Your task to perform on an android device: Open privacy settings Image 0: 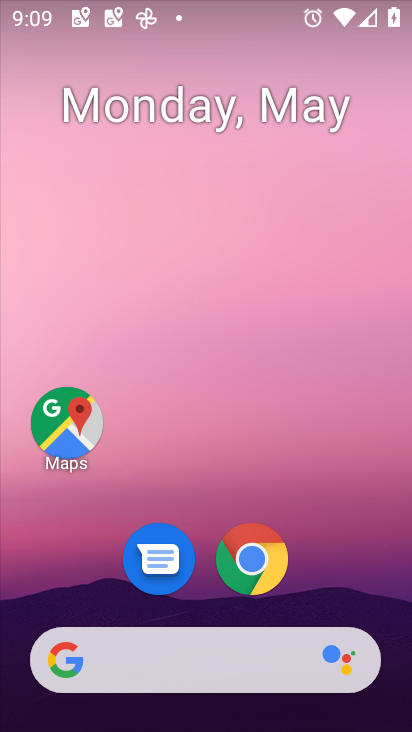
Step 0: drag from (381, 616) to (274, 94)
Your task to perform on an android device: Open privacy settings Image 1: 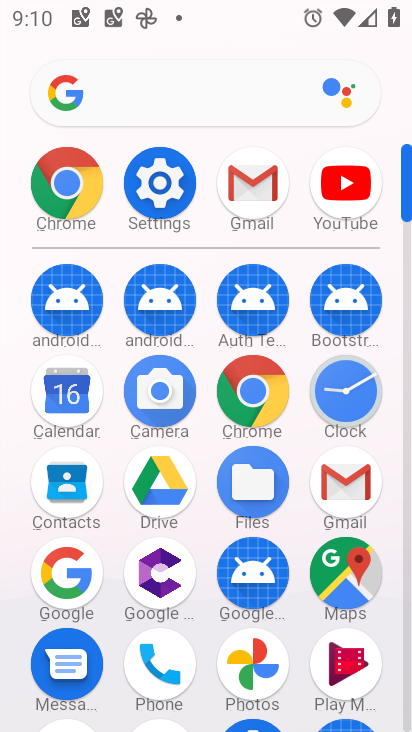
Step 1: click (164, 195)
Your task to perform on an android device: Open privacy settings Image 2: 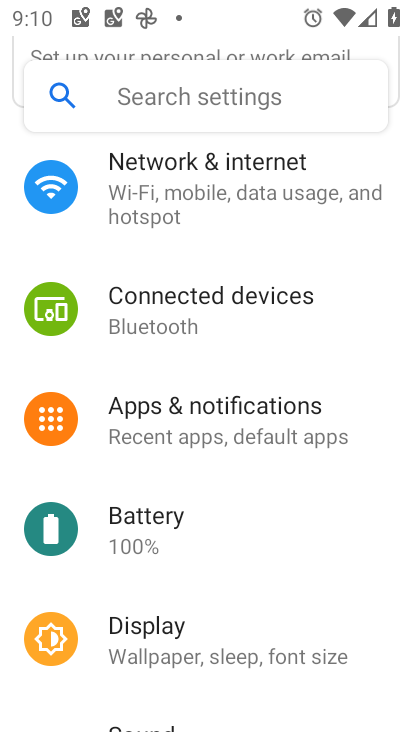
Step 2: drag from (185, 666) to (189, 159)
Your task to perform on an android device: Open privacy settings Image 3: 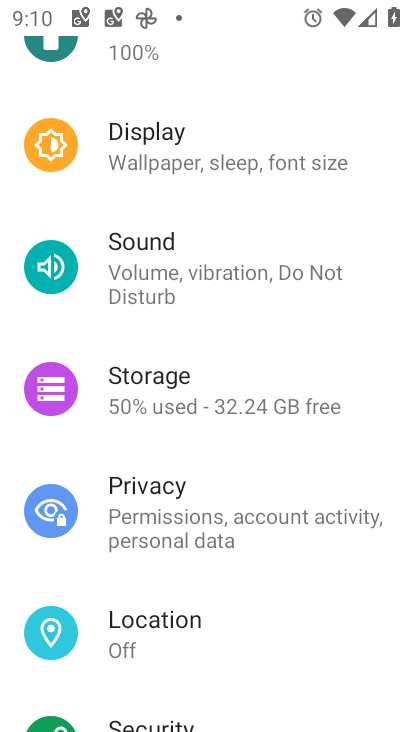
Step 3: click (165, 498)
Your task to perform on an android device: Open privacy settings Image 4: 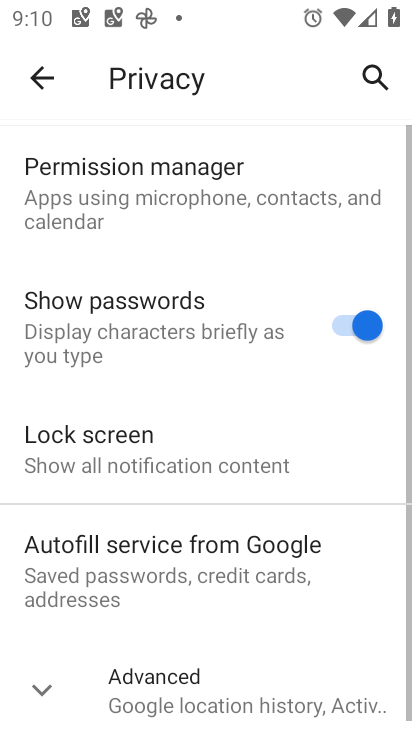
Step 4: task complete